Your task to perform on an android device: turn off location Image 0: 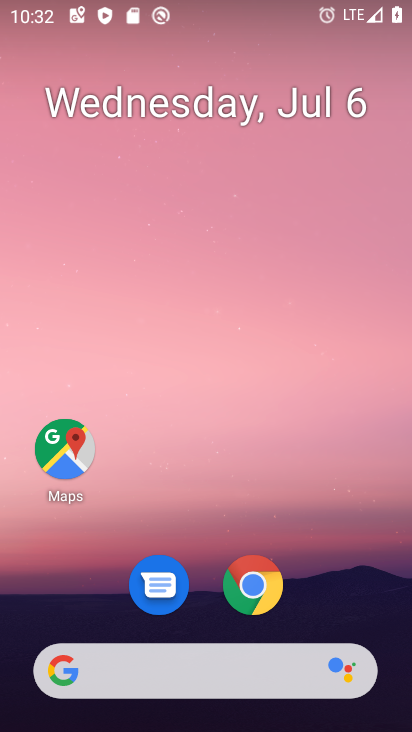
Step 0: drag from (222, 506) to (287, 2)
Your task to perform on an android device: turn off location Image 1: 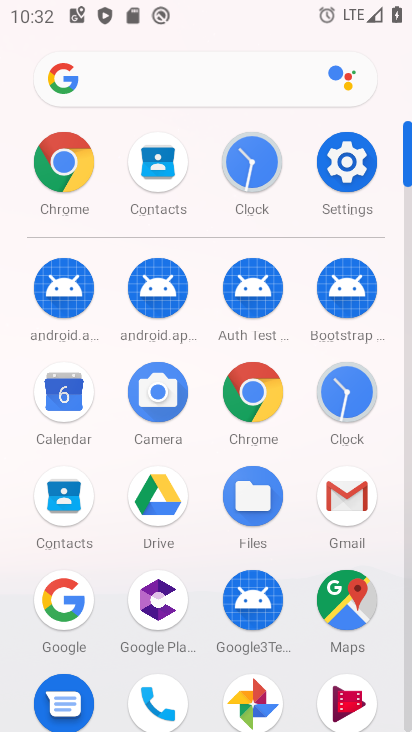
Step 1: click (349, 148)
Your task to perform on an android device: turn off location Image 2: 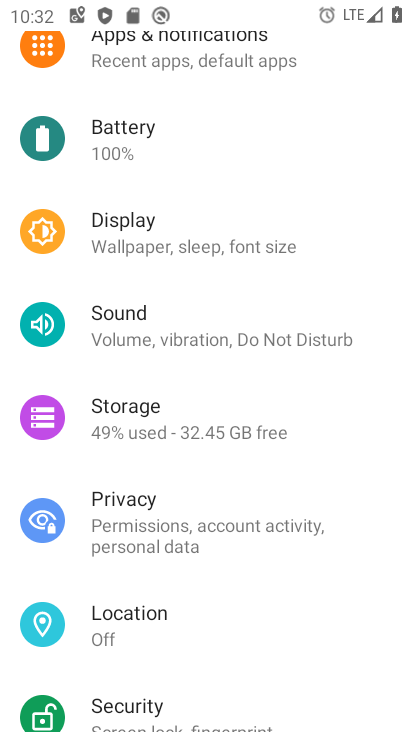
Step 2: click (173, 619)
Your task to perform on an android device: turn off location Image 3: 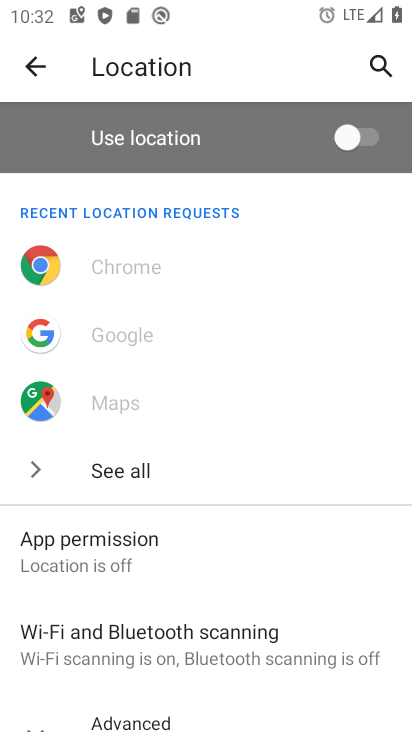
Step 3: task complete